Your task to perform on an android device: change the clock style Image 0: 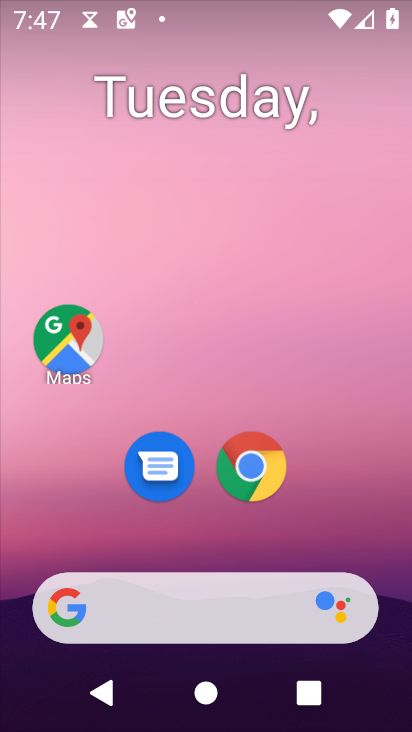
Step 0: press home button
Your task to perform on an android device: change the clock style Image 1: 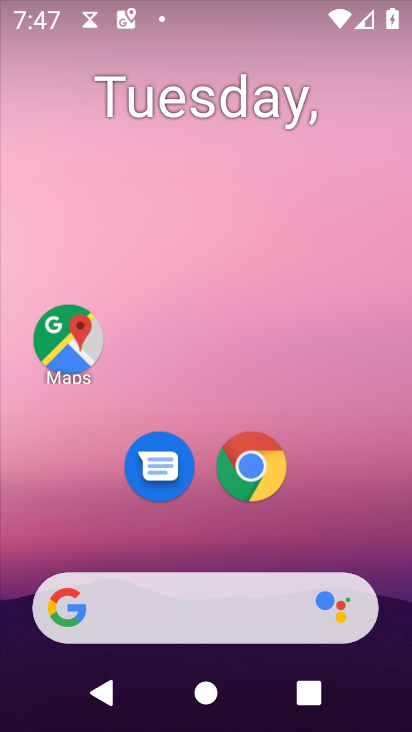
Step 1: drag from (213, 521) to (235, 5)
Your task to perform on an android device: change the clock style Image 2: 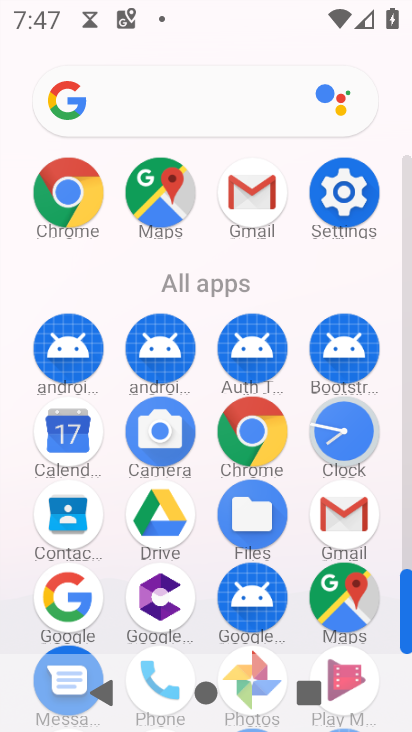
Step 2: click (337, 451)
Your task to perform on an android device: change the clock style Image 3: 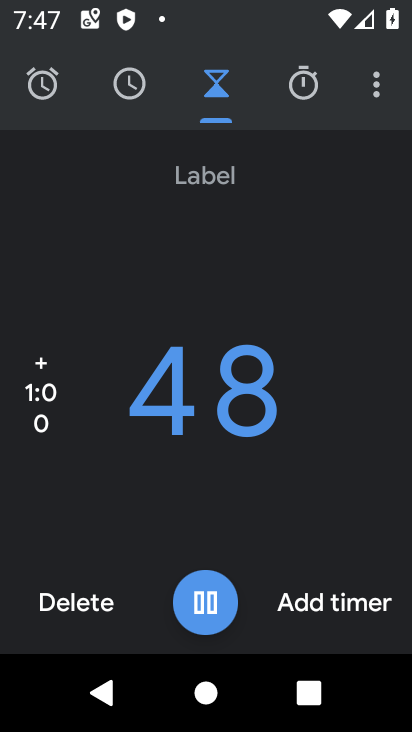
Step 3: click (383, 80)
Your task to perform on an android device: change the clock style Image 4: 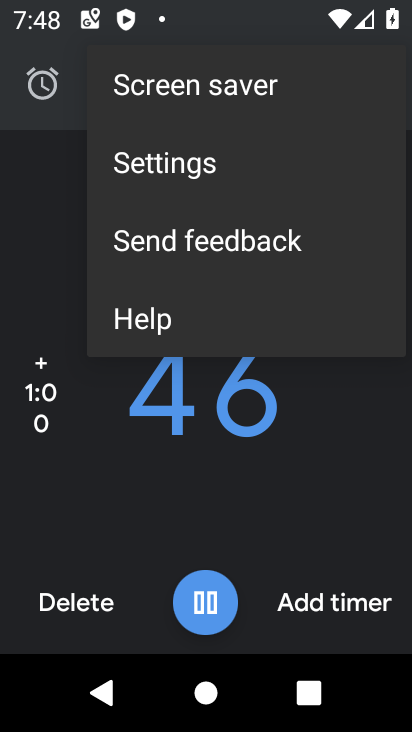
Step 4: click (226, 169)
Your task to perform on an android device: change the clock style Image 5: 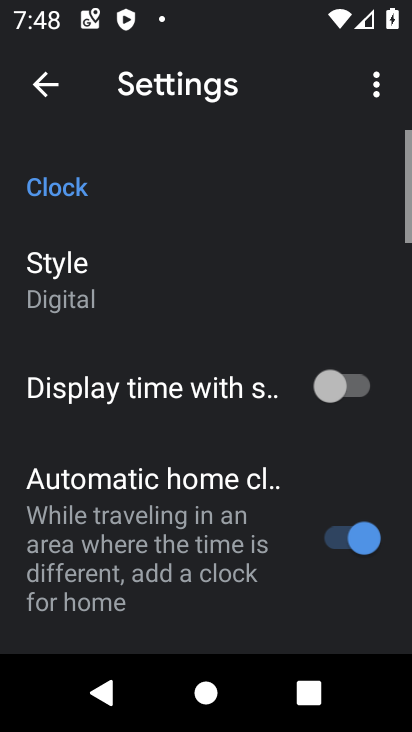
Step 5: click (110, 282)
Your task to perform on an android device: change the clock style Image 6: 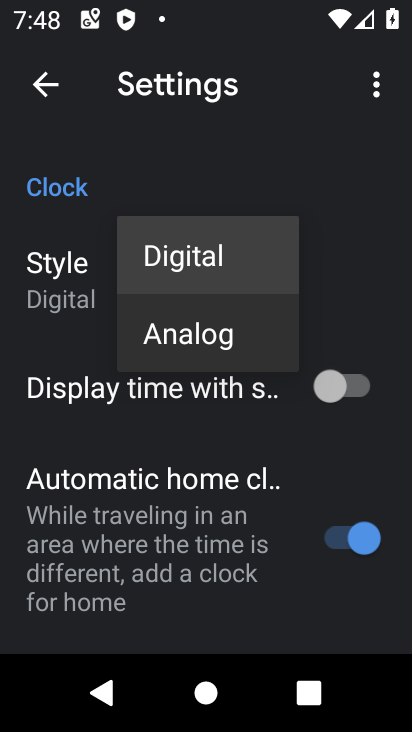
Step 6: click (174, 346)
Your task to perform on an android device: change the clock style Image 7: 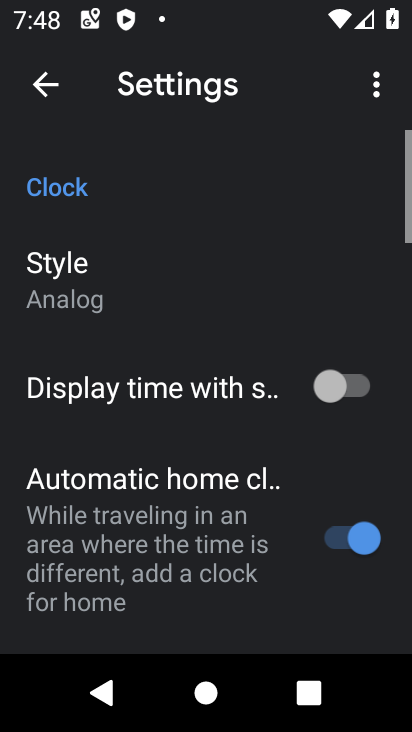
Step 7: task complete